Your task to perform on an android device: What's the news in Pakistan? Image 0: 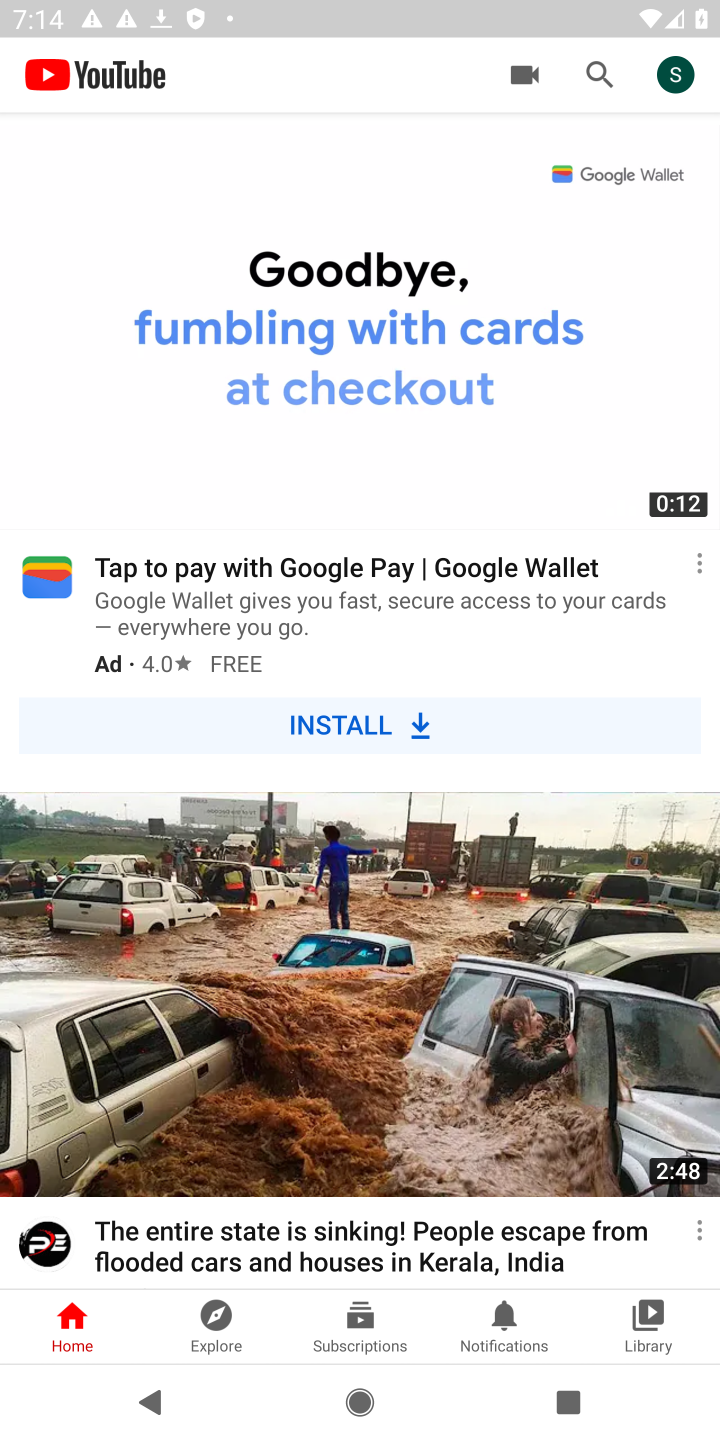
Step 0: press home button
Your task to perform on an android device: What's the news in Pakistan? Image 1: 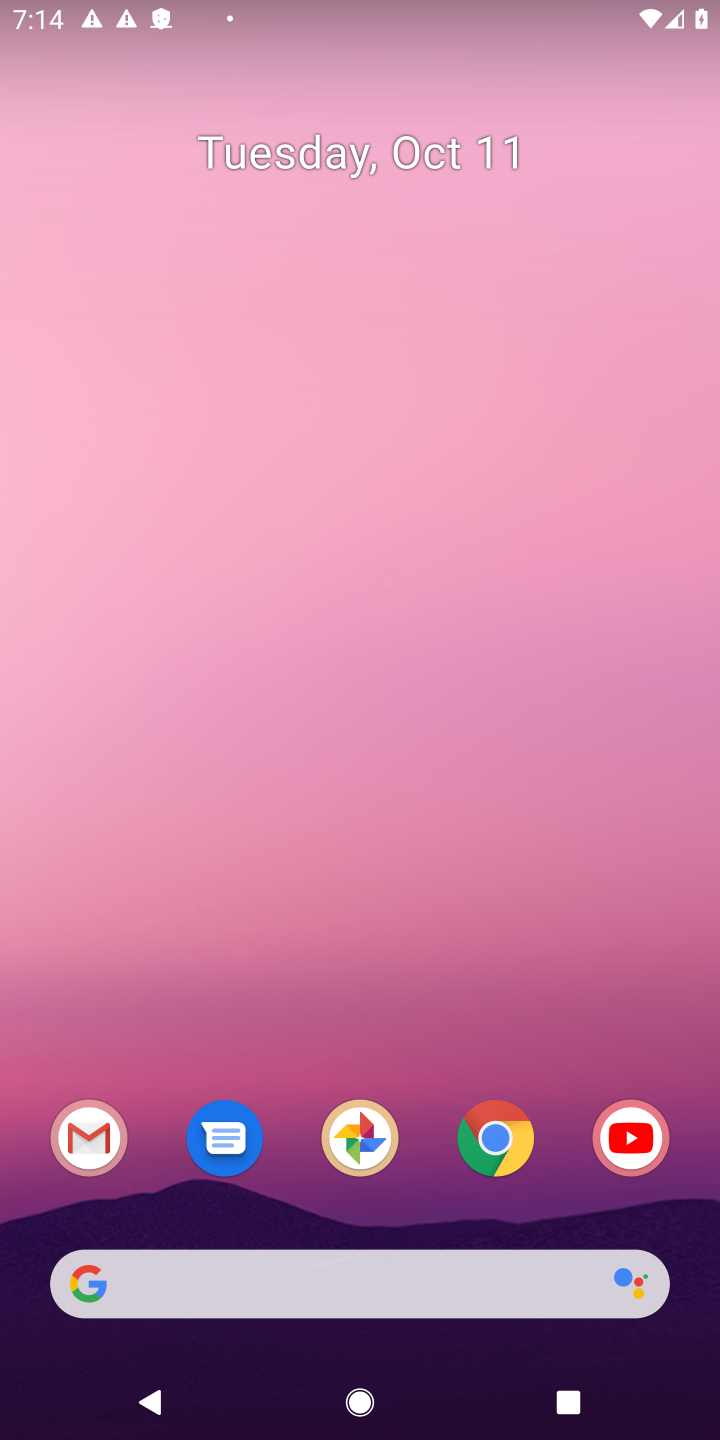
Step 1: click (339, 1270)
Your task to perform on an android device: What's the news in Pakistan? Image 2: 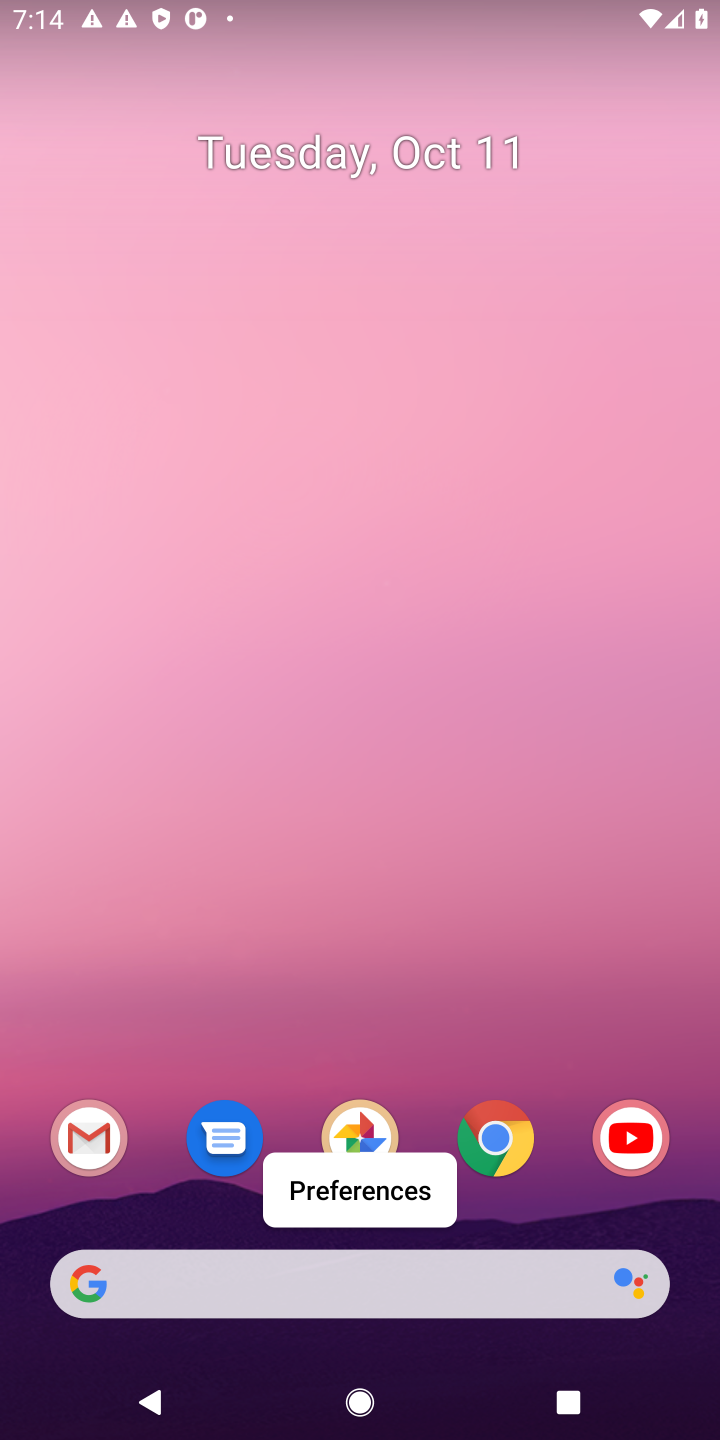
Step 2: click (136, 1274)
Your task to perform on an android device: What's the news in Pakistan? Image 3: 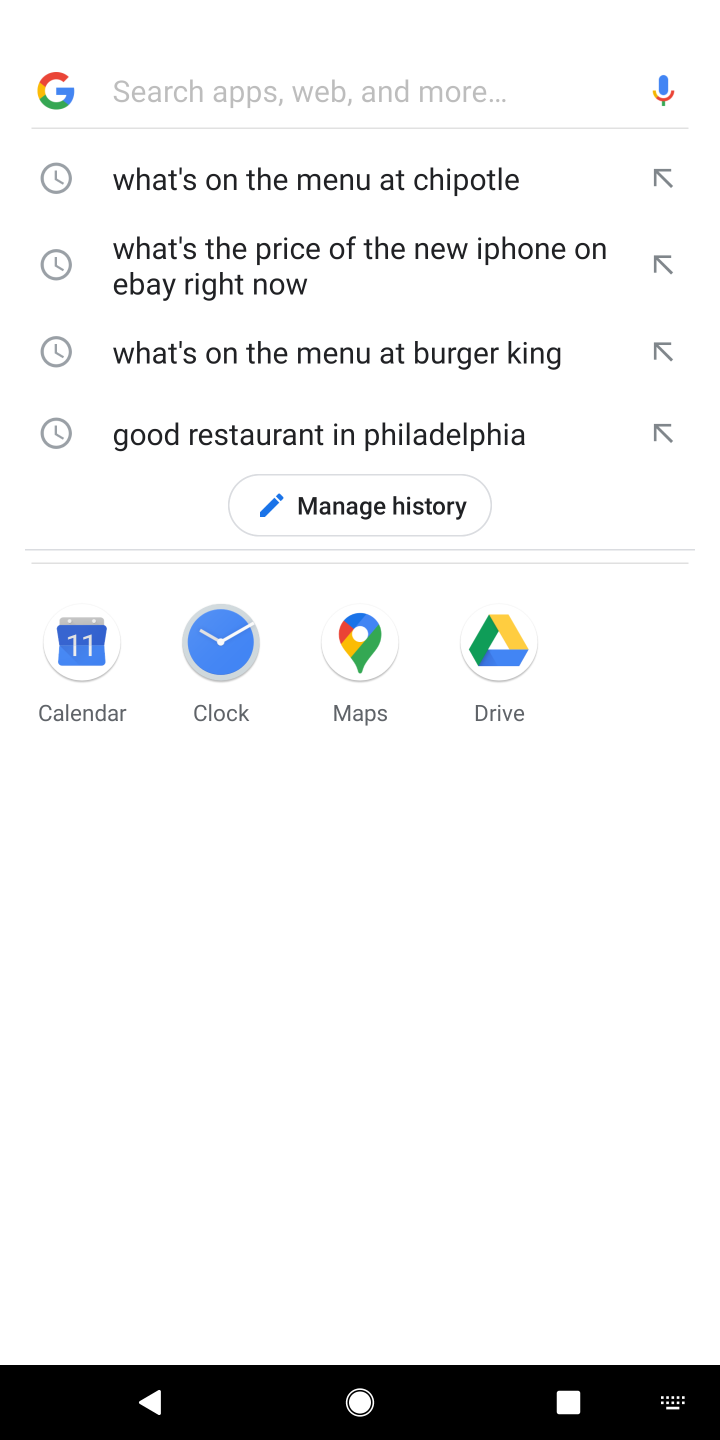
Step 3: type "What's the news in Pakistan?"
Your task to perform on an android device: What's the news in Pakistan? Image 4: 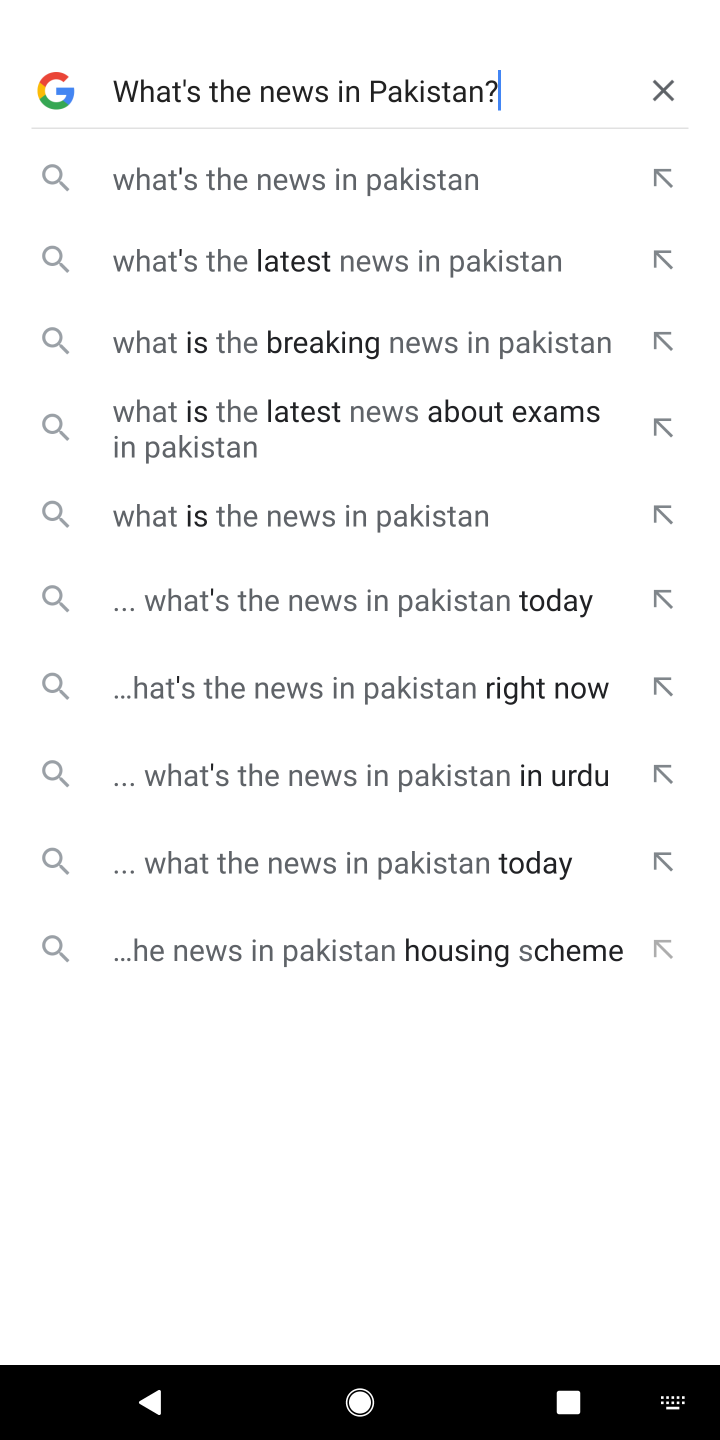
Step 4: click (238, 179)
Your task to perform on an android device: What's the news in Pakistan? Image 5: 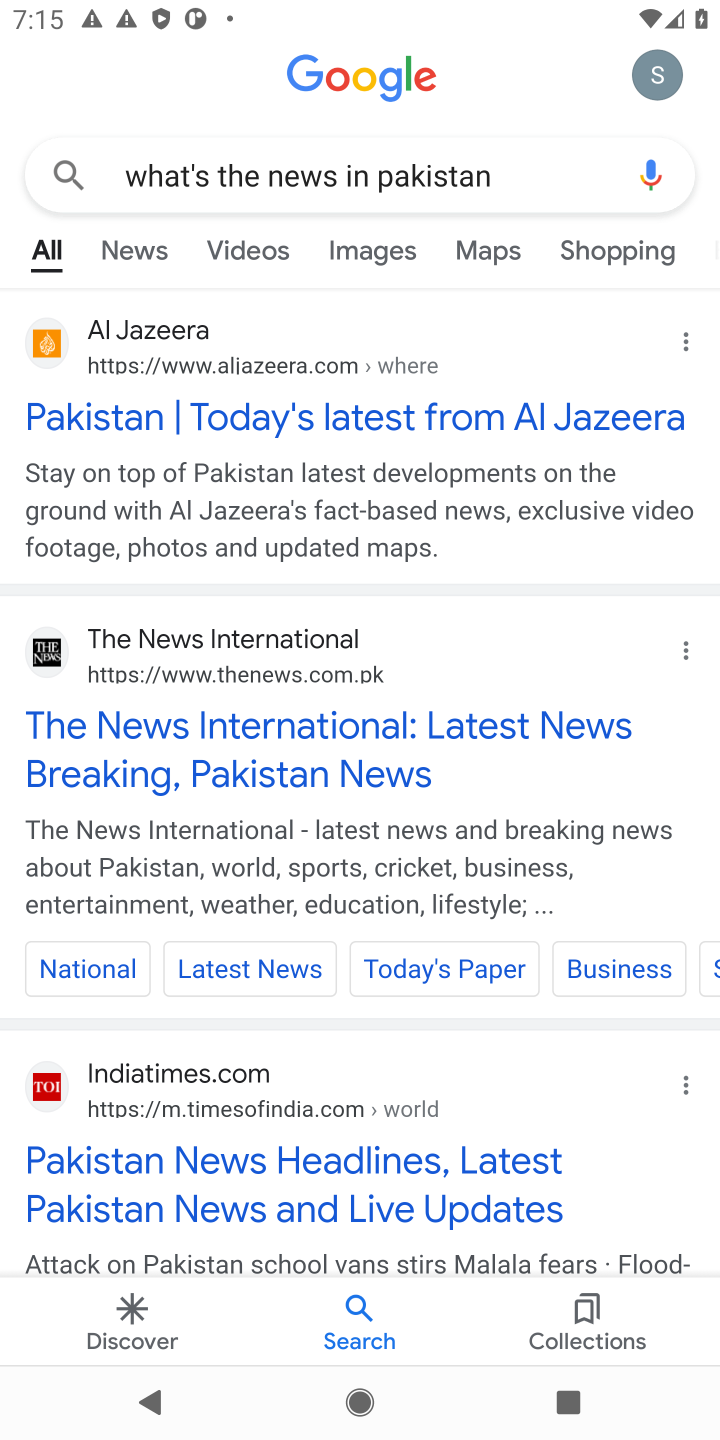
Step 5: click (254, 416)
Your task to perform on an android device: What's the news in Pakistan? Image 6: 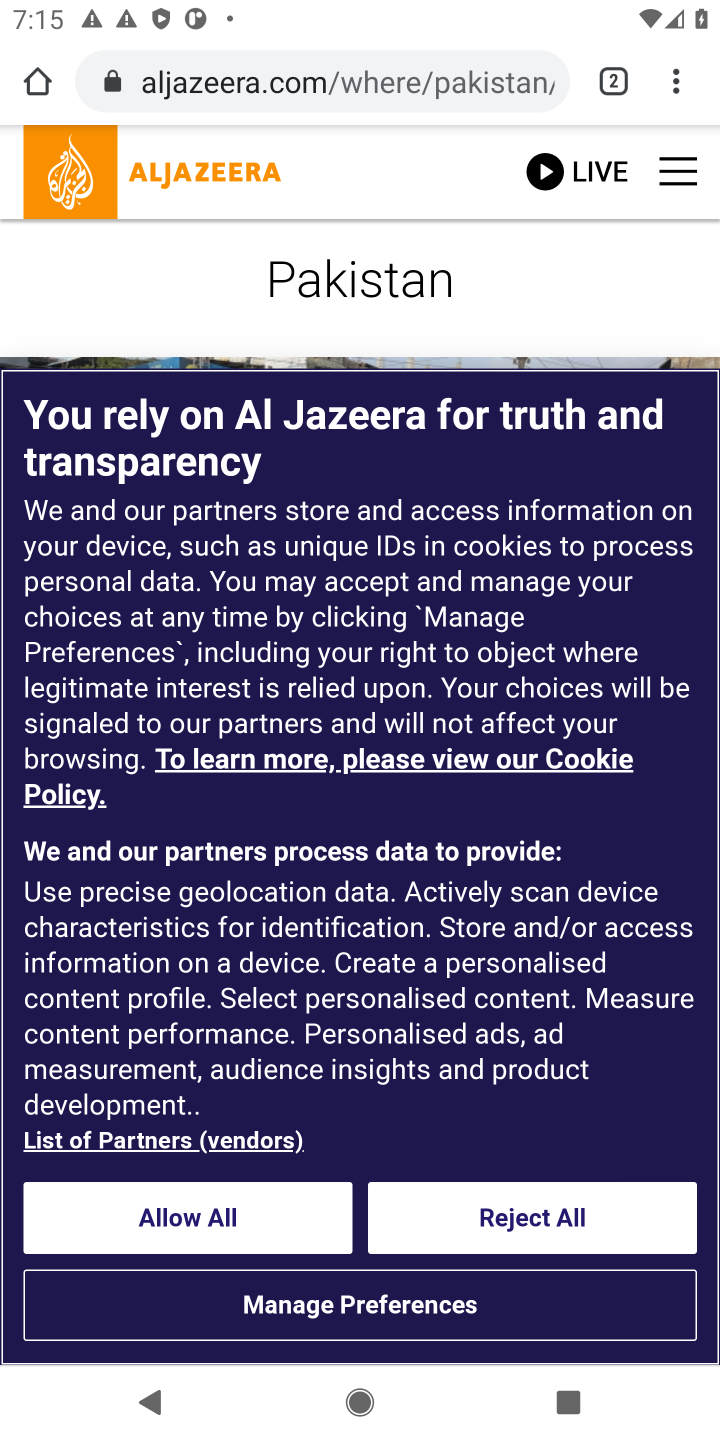
Step 6: click (243, 1227)
Your task to perform on an android device: What's the news in Pakistan? Image 7: 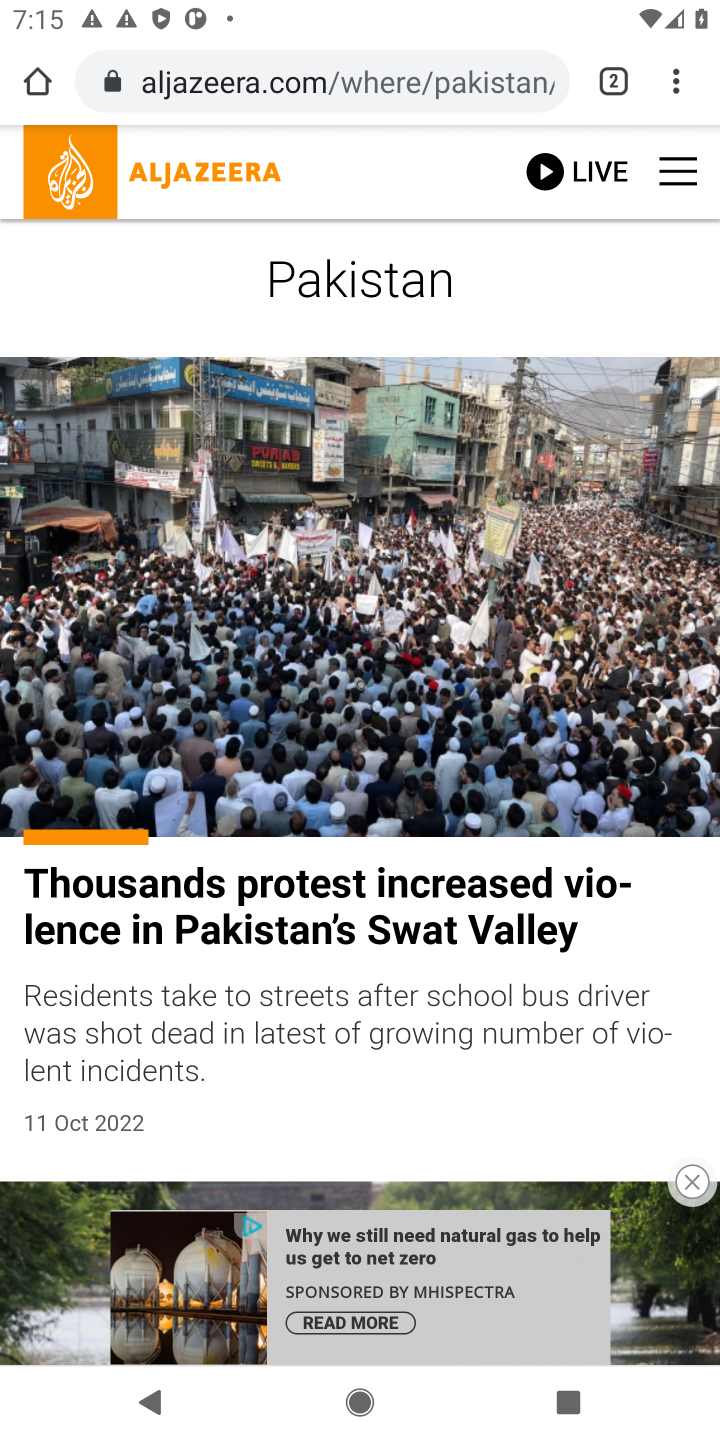
Step 7: task complete